Your task to perform on an android device: check android version Image 0: 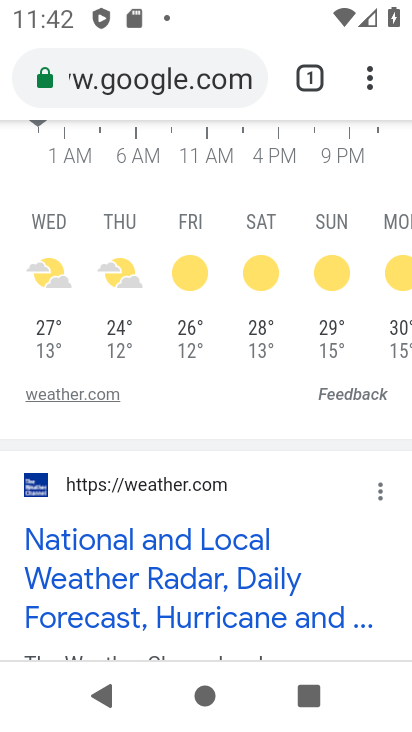
Step 0: press home button
Your task to perform on an android device: check android version Image 1: 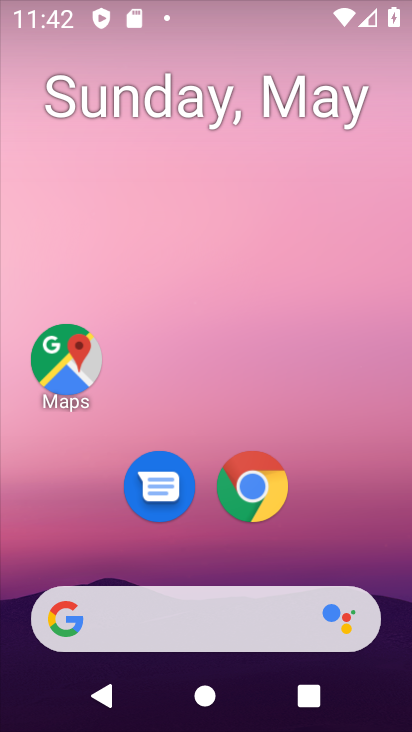
Step 1: drag from (335, 503) to (370, 25)
Your task to perform on an android device: check android version Image 2: 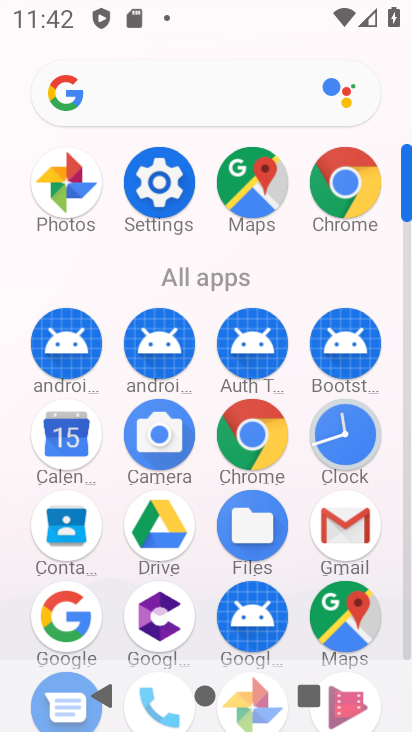
Step 2: click (147, 180)
Your task to perform on an android device: check android version Image 3: 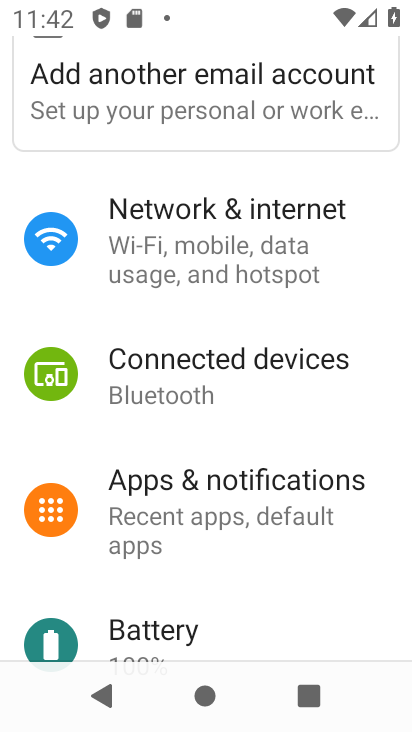
Step 3: drag from (98, 562) to (341, 42)
Your task to perform on an android device: check android version Image 4: 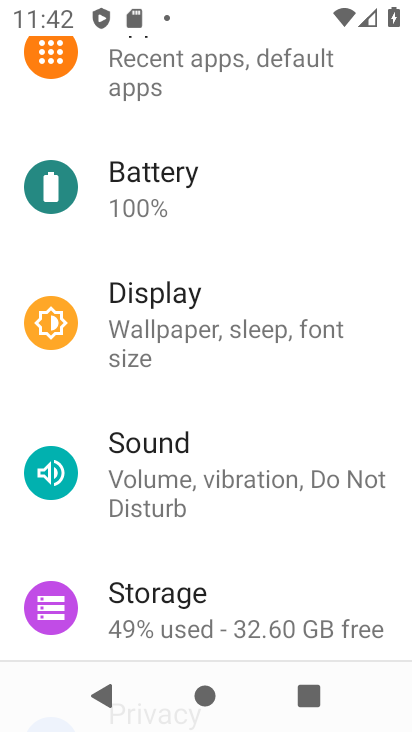
Step 4: drag from (207, 641) to (346, 235)
Your task to perform on an android device: check android version Image 5: 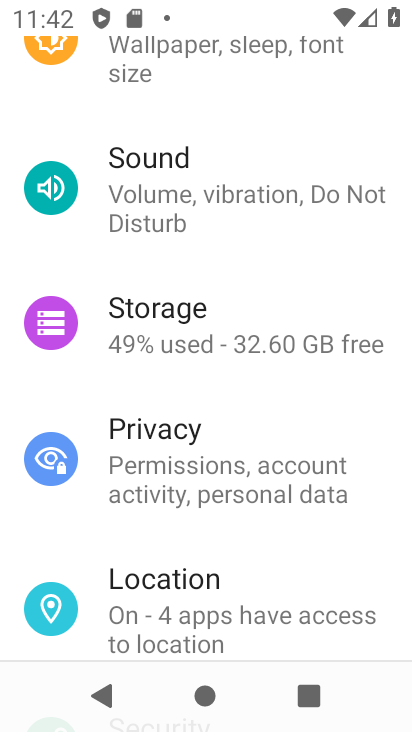
Step 5: drag from (223, 556) to (365, 133)
Your task to perform on an android device: check android version Image 6: 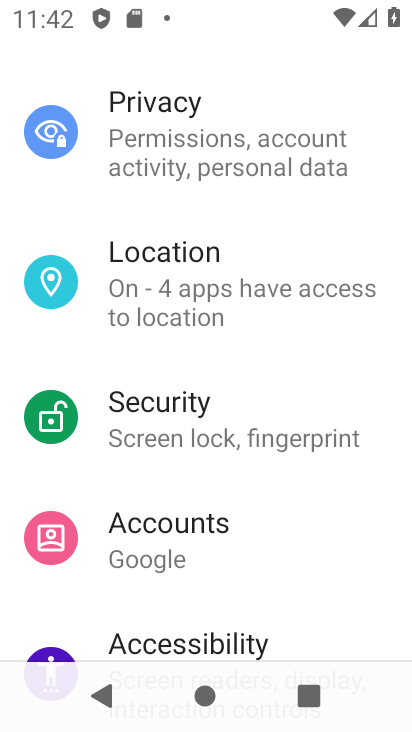
Step 6: drag from (125, 472) to (248, 43)
Your task to perform on an android device: check android version Image 7: 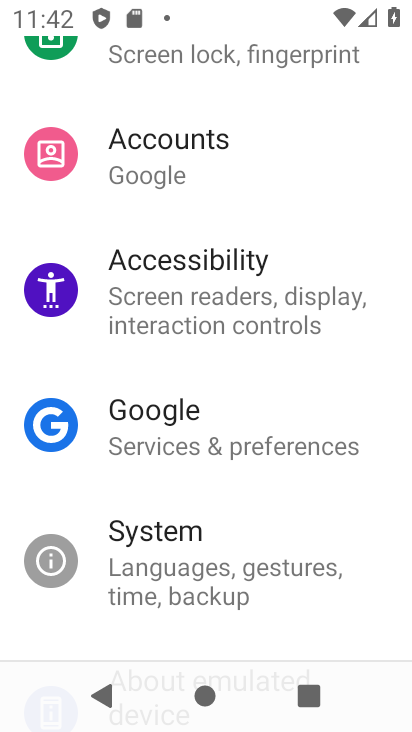
Step 7: drag from (197, 497) to (290, 136)
Your task to perform on an android device: check android version Image 8: 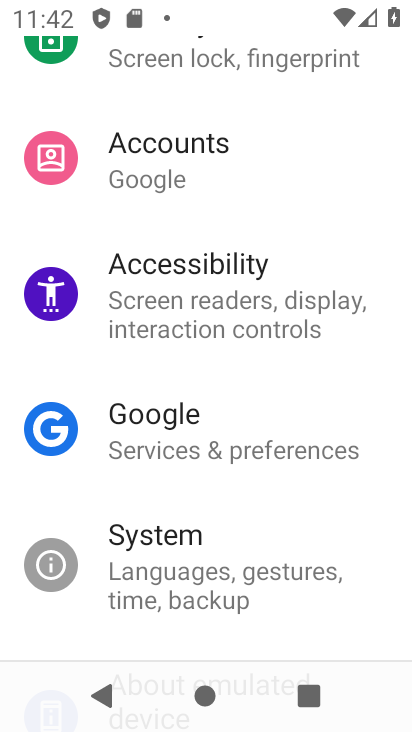
Step 8: drag from (194, 559) to (325, 73)
Your task to perform on an android device: check android version Image 9: 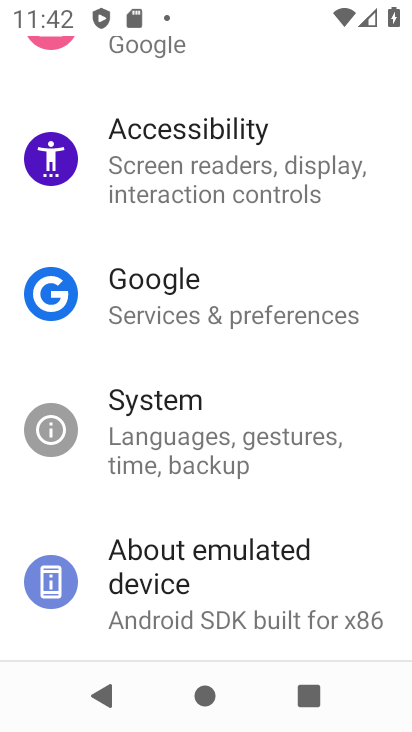
Step 9: click (185, 584)
Your task to perform on an android device: check android version Image 10: 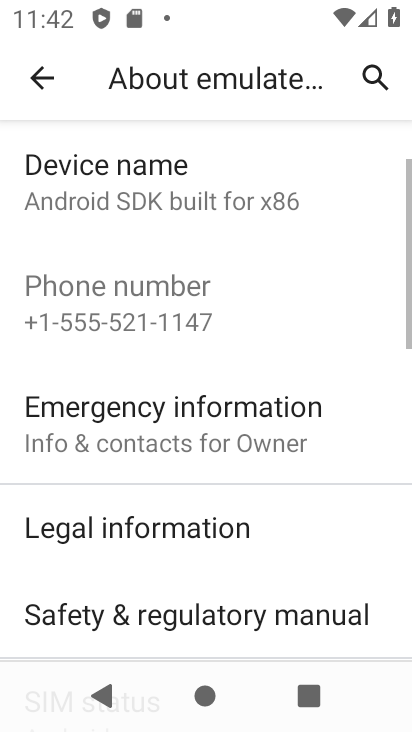
Step 10: drag from (201, 513) to (315, 17)
Your task to perform on an android device: check android version Image 11: 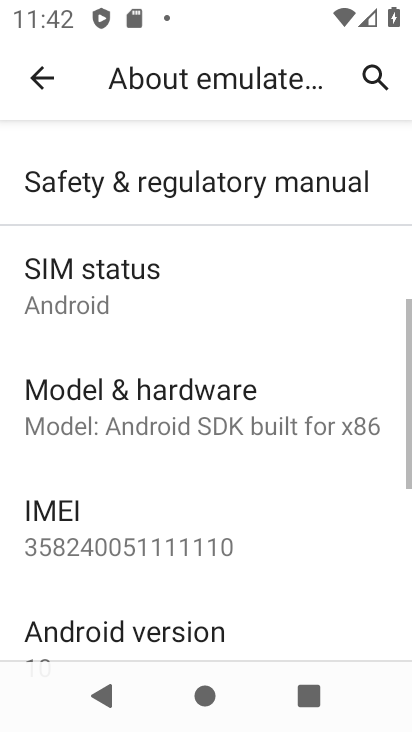
Step 11: drag from (237, 512) to (324, 147)
Your task to perform on an android device: check android version Image 12: 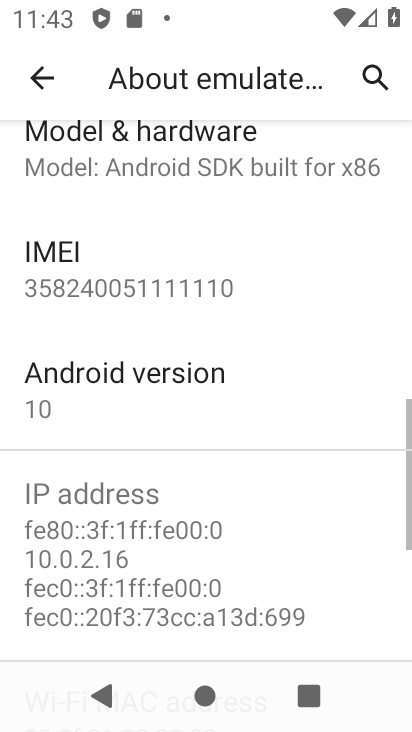
Step 12: click (155, 402)
Your task to perform on an android device: check android version Image 13: 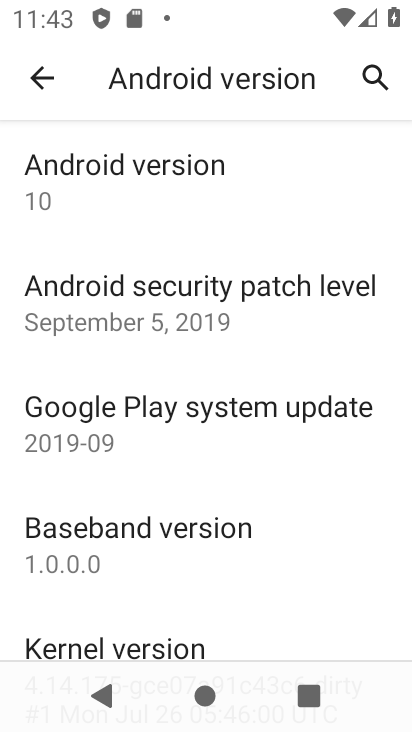
Step 13: task complete